Your task to perform on an android device: Go to Wikipedia Image 0: 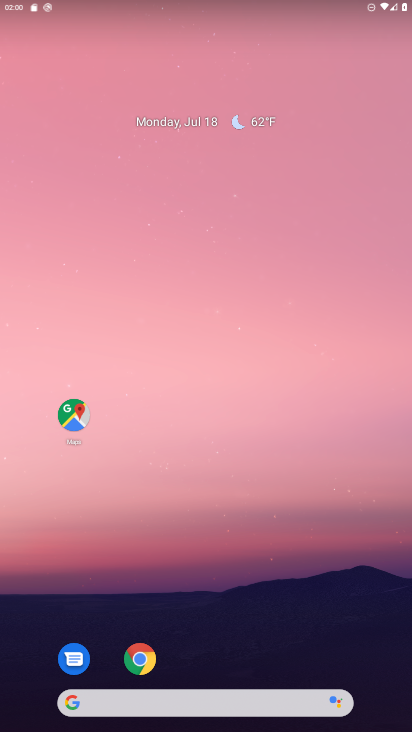
Step 0: drag from (210, 15) to (166, 47)
Your task to perform on an android device: Go to Wikipedia Image 1: 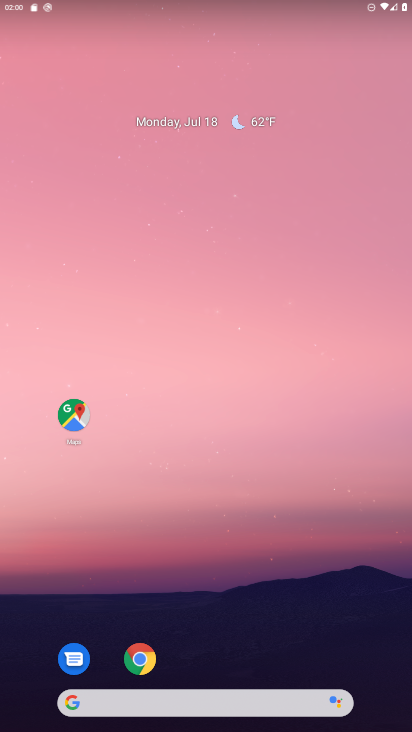
Step 1: drag from (251, 547) to (217, 20)
Your task to perform on an android device: Go to Wikipedia Image 2: 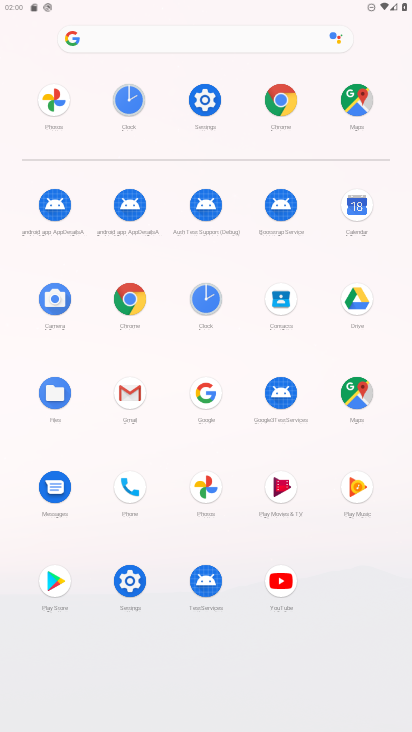
Step 2: click (277, 98)
Your task to perform on an android device: Go to Wikipedia Image 3: 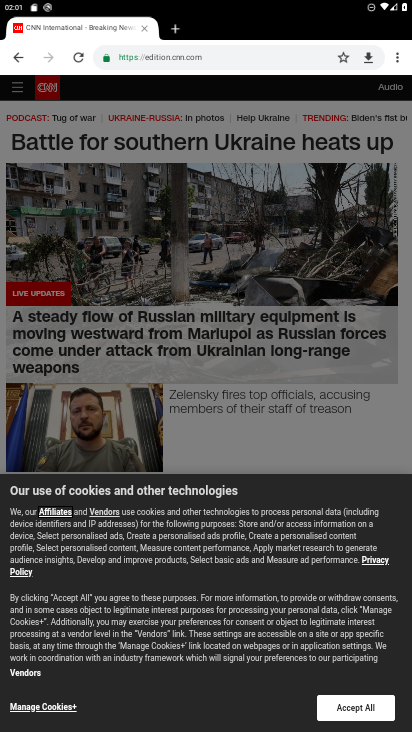
Step 3: click (224, 54)
Your task to perform on an android device: Go to Wikipedia Image 4: 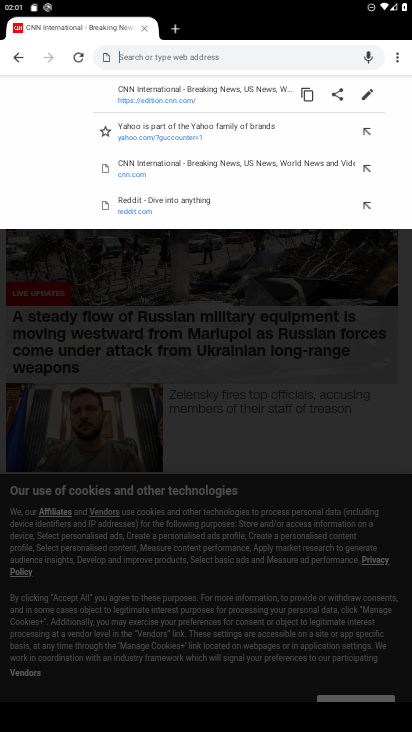
Step 4: type "wikipedia"
Your task to perform on an android device: Go to Wikipedia Image 5: 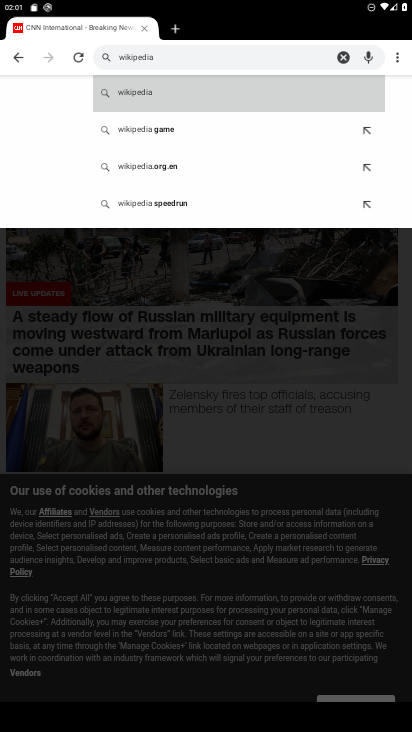
Step 5: click (151, 88)
Your task to perform on an android device: Go to Wikipedia Image 6: 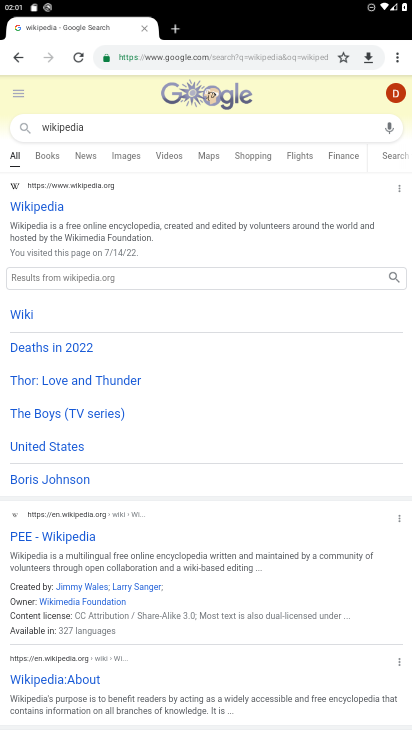
Step 6: click (45, 203)
Your task to perform on an android device: Go to Wikipedia Image 7: 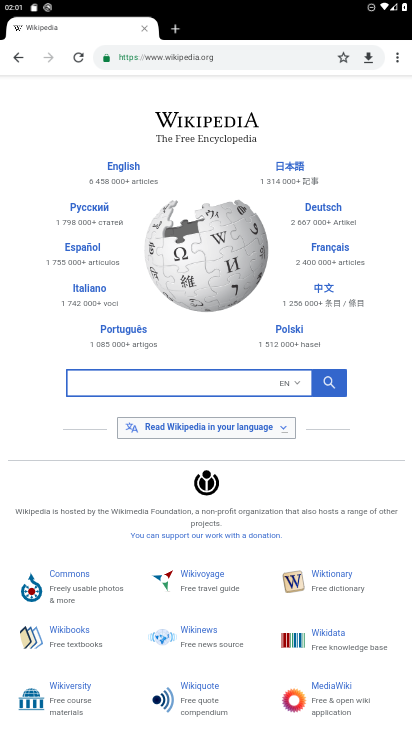
Step 7: task complete